Your task to perform on an android device: Search for macbook pro on ebay, select the first entry, and add it to the cart. Image 0: 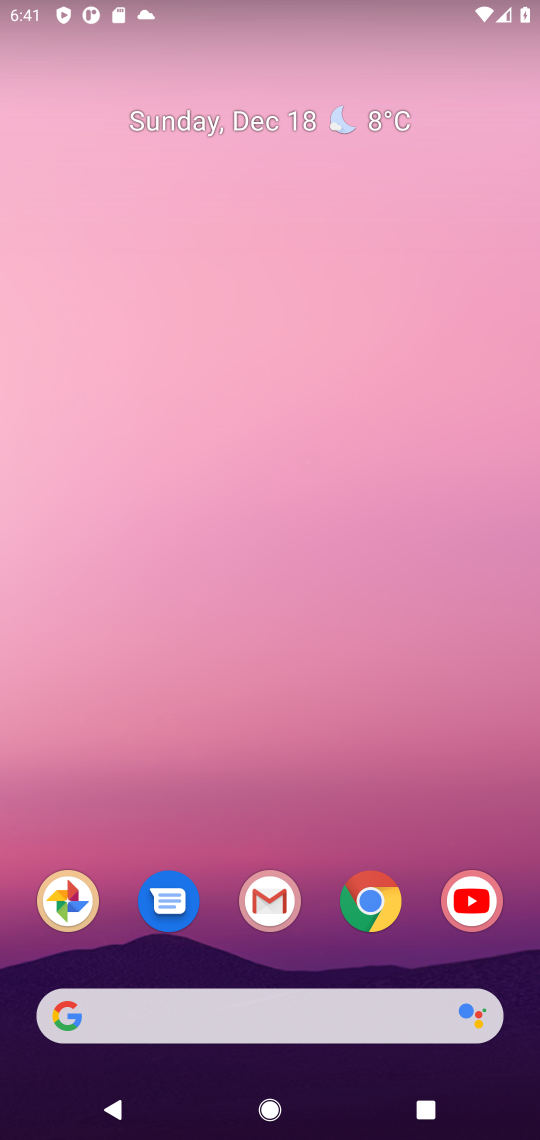
Step 0: click (383, 901)
Your task to perform on an android device: Search for macbook pro on ebay, select the first entry, and add it to the cart. Image 1: 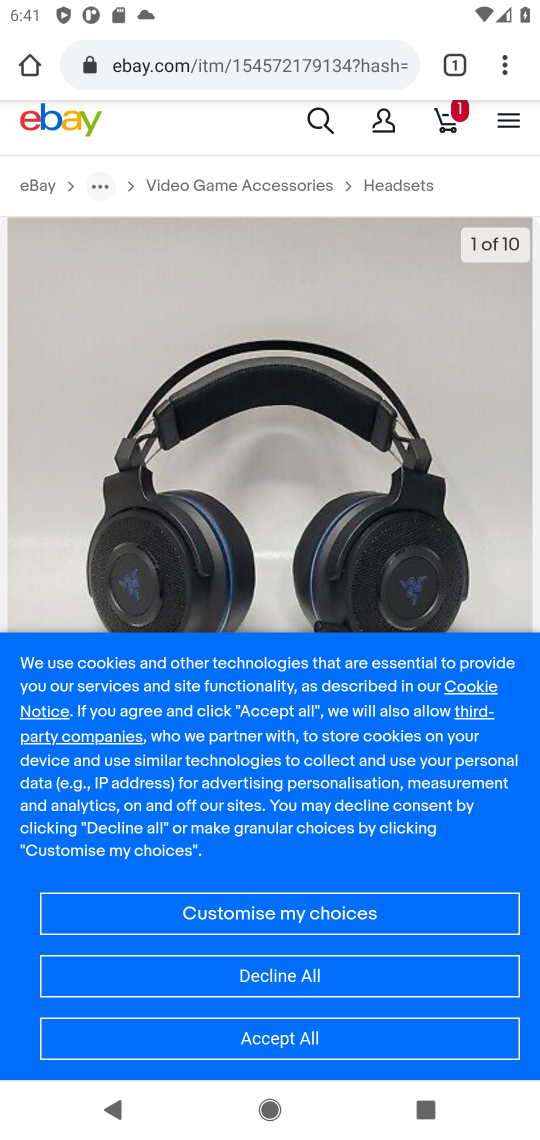
Step 1: click (351, 1027)
Your task to perform on an android device: Search for macbook pro on ebay, select the first entry, and add it to the cart. Image 2: 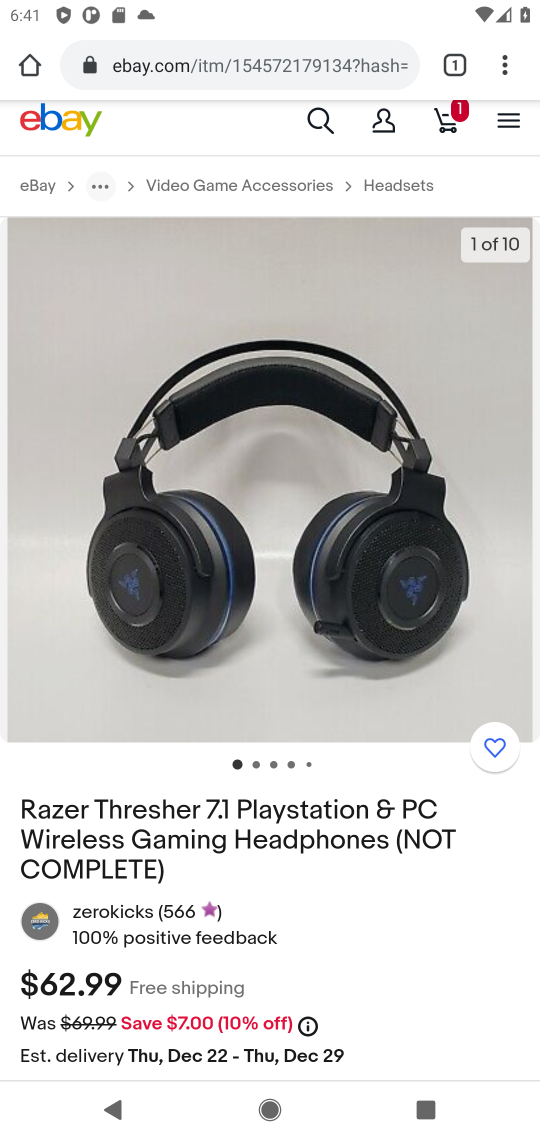
Step 2: click (312, 60)
Your task to perform on an android device: Search for macbook pro on ebay, select the first entry, and add it to the cart. Image 3: 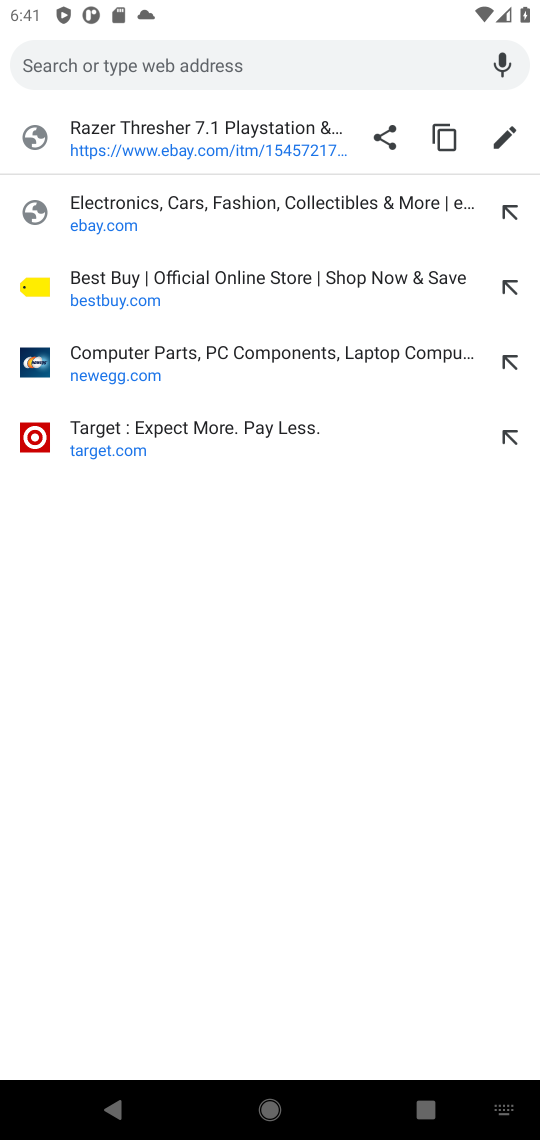
Step 3: click (265, 703)
Your task to perform on an android device: Search for macbook pro on ebay, select the first entry, and add it to the cart. Image 4: 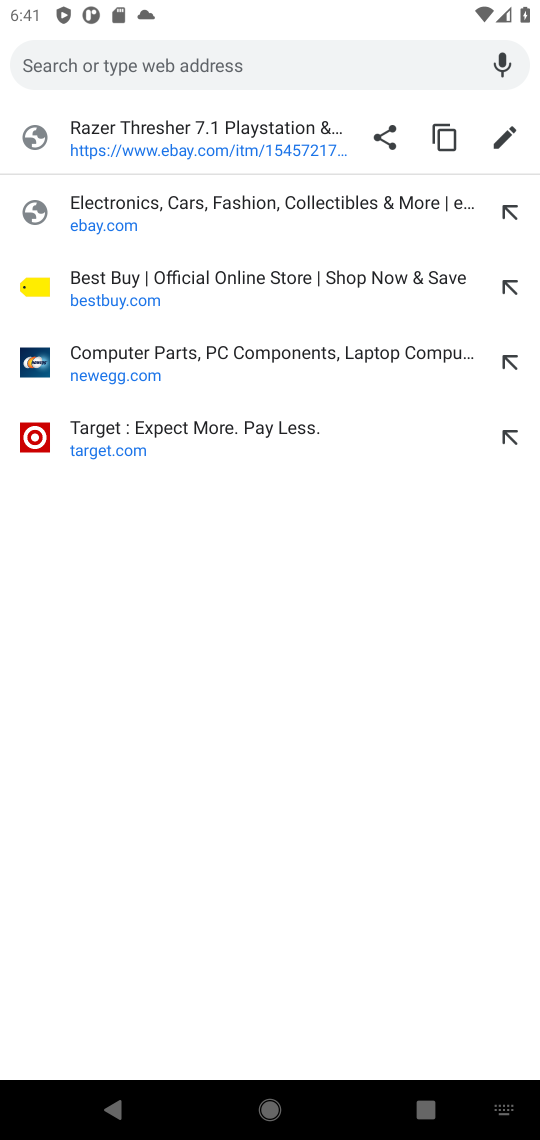
Step 4: press back button
Your task to perform on an android device: Search for macbook pro on ebay, select the first entry, and add it to the cart. Image 5: 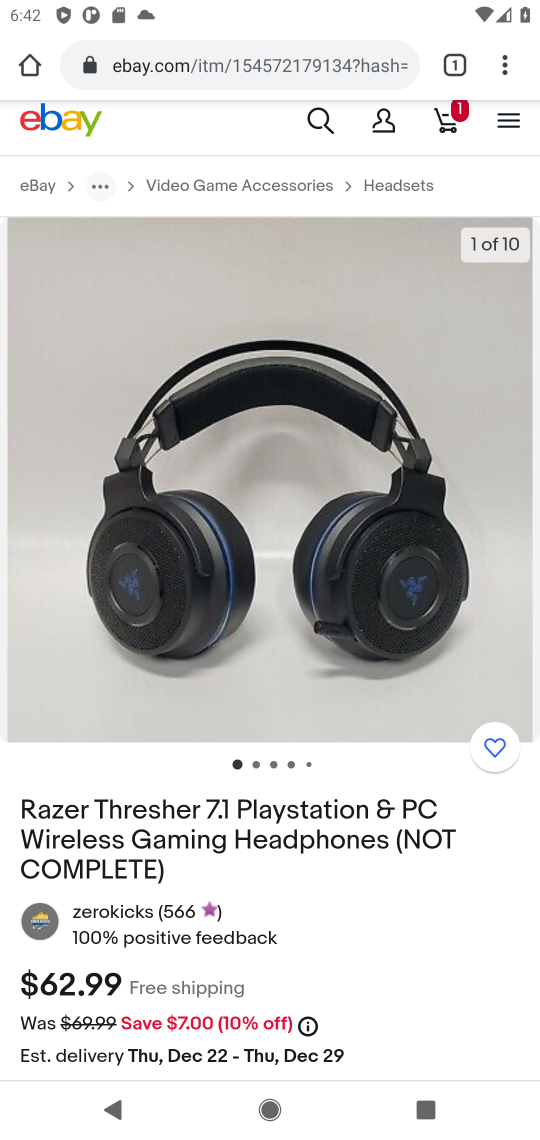
Step 5: click (327, 137)
Your task to perform on an android device: Search for macbook pro on ebay, select the first entry, and add it to the cart. Image 6: 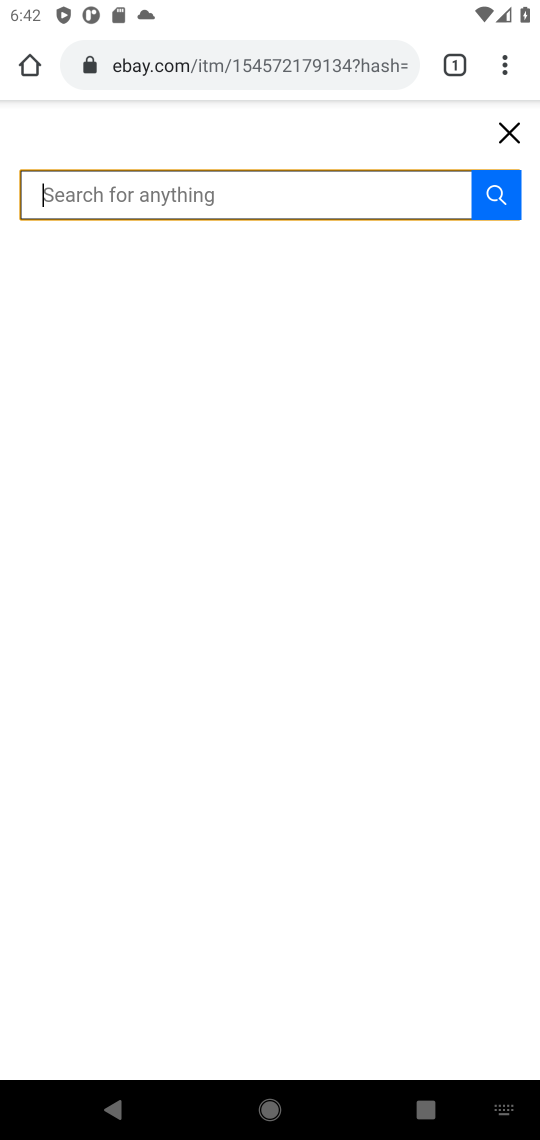
Step 6: type "macbook pro"
Your task to perform on an android device: Search for macbook pro on ebay, select the first entry, and add it to the cart. Image 7: 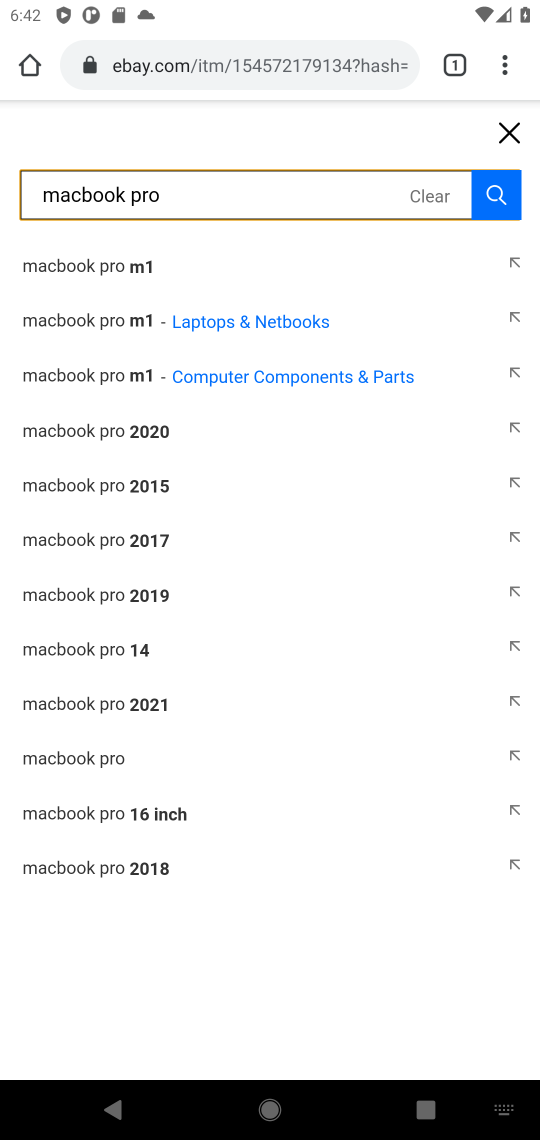
Step 7: click (118, 267)
Your task to perform on an android device: Search for macbook pro on ebay, select the first entry, and add it to the cart. Image 8: 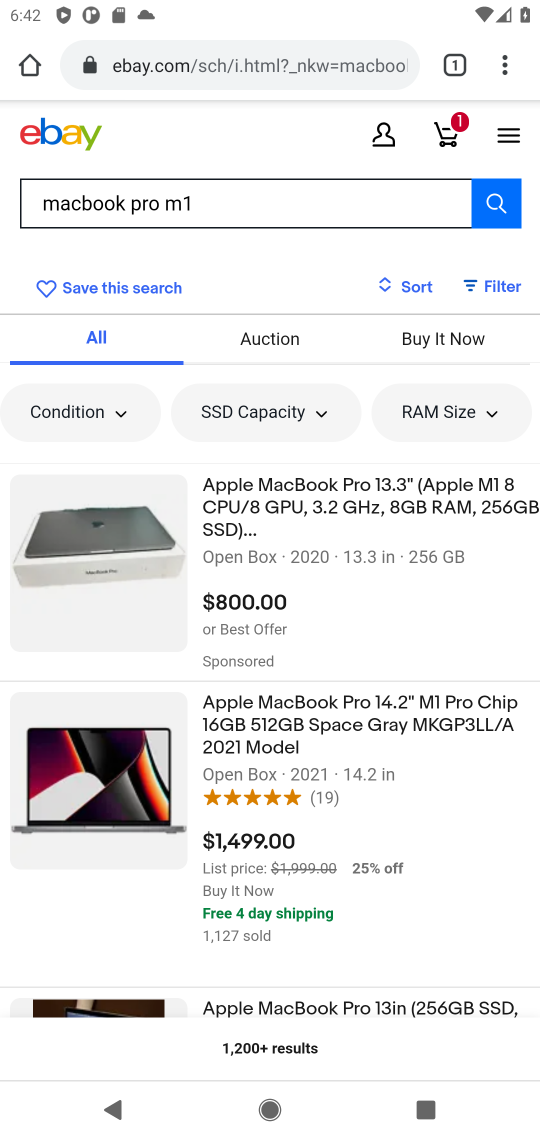
Step 8: click (310, 511)
Your task to perform on an android device: Search for macbook pro on ebay, select the first entry, and add it to the cart. Image 9: 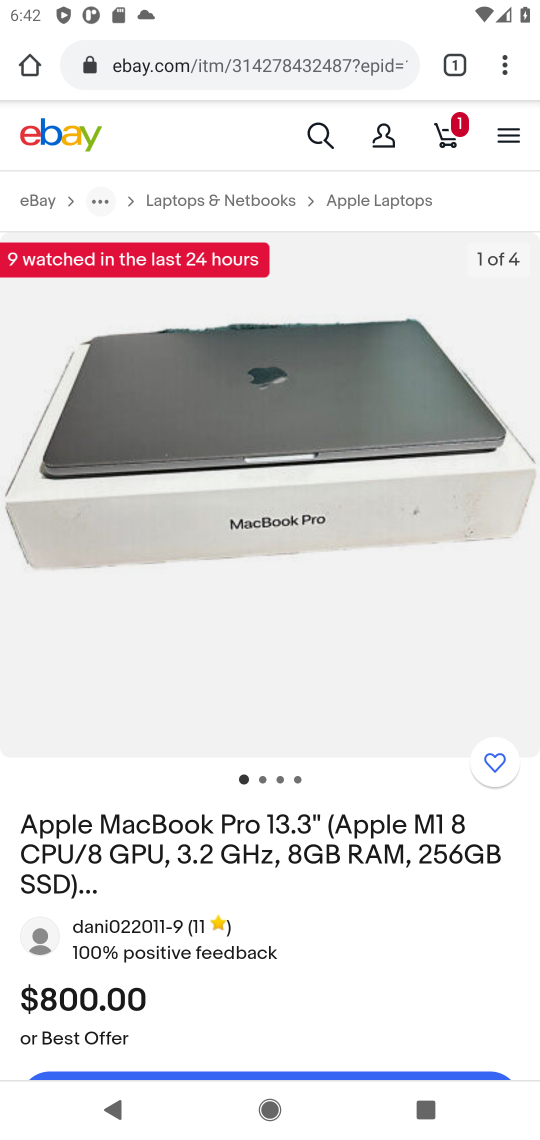
Step 9: drag from (92, 736) to (122, 440)
Your task to perform on an android device: Search for macbook pro on ebay, select the first entry, and add it to the cart. Image 10: 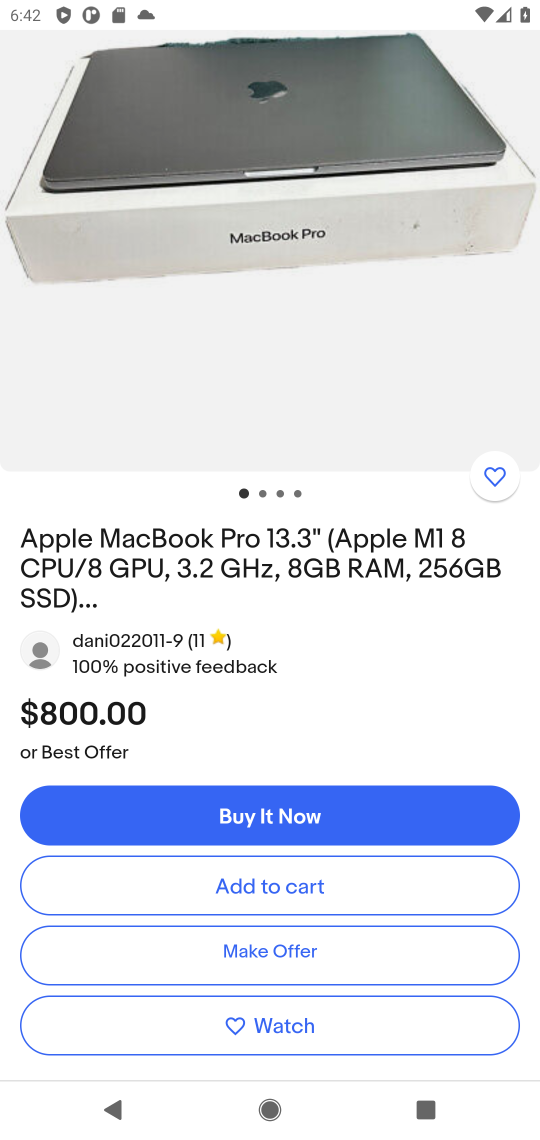
Step 10: click (270, 876)
Your task to perform on an android device: Search for macbook pro on ebay, select the first entry, and add it to the cart. Image 11: 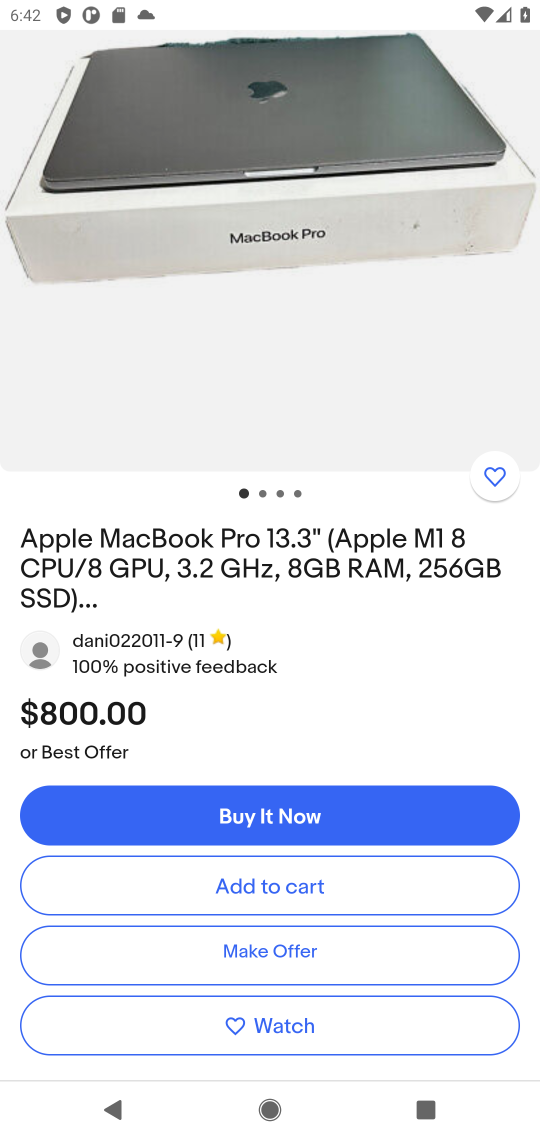
Step 11: task complete